Your task to perform on an android device: Go to Yahoo.com Image 0: 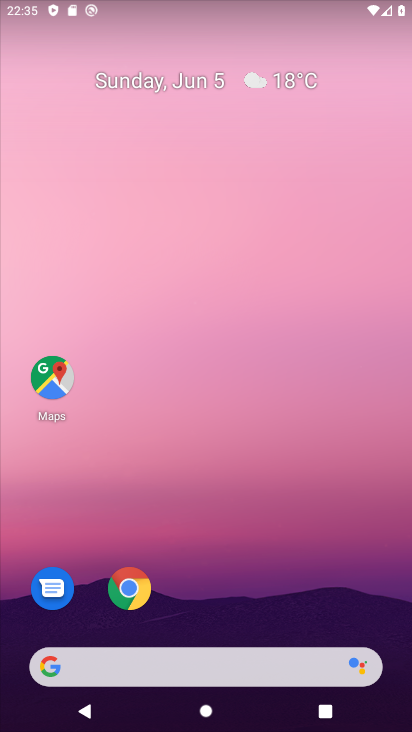
Step 0: drag from (301, 582) to (322, 216)
Your task to perform on an android device: Go to Yahoo.com Image 1: 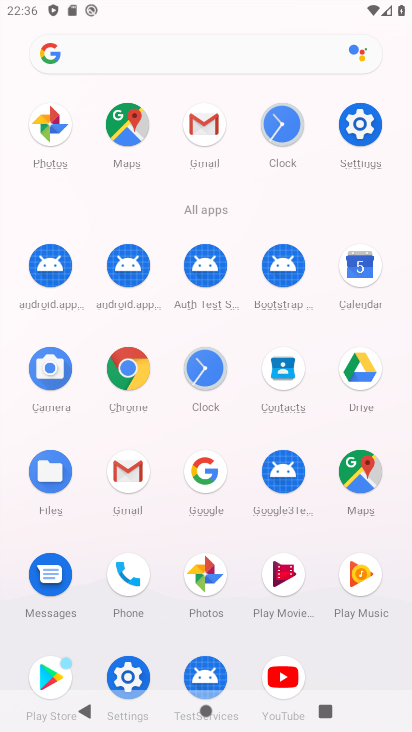
Step 1: click (129, 376)
Your task to perform on an android device: Go to Yahoo.com Image 2: 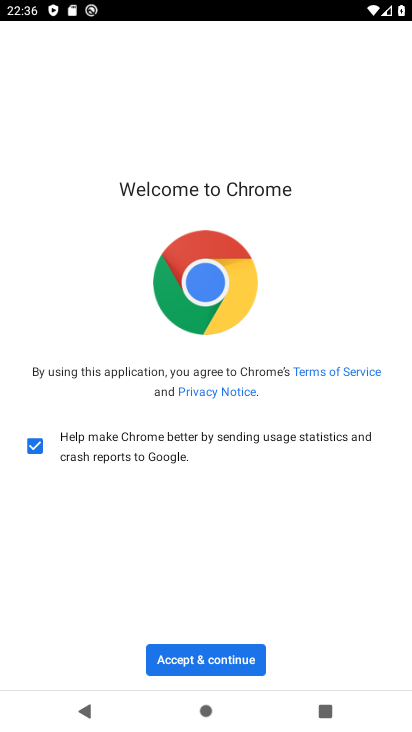
Step 2: click (191, 663)
Your task to perform on an android device: Go to Yahoo.com Image 3: 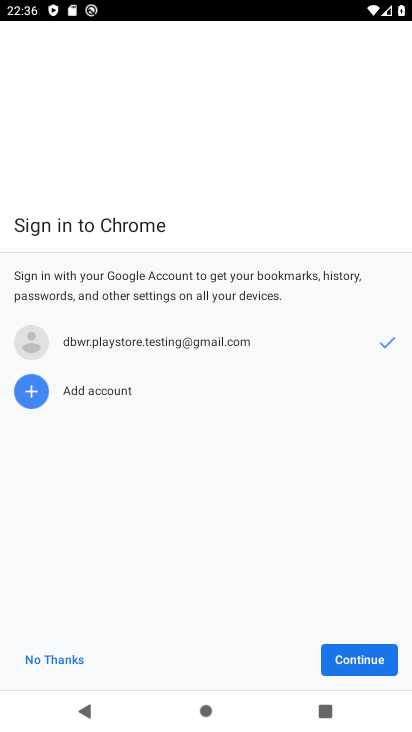
Step 3: click (338, 661)
Your task to perform on an android device: Go to Yahoo.com Image 4: 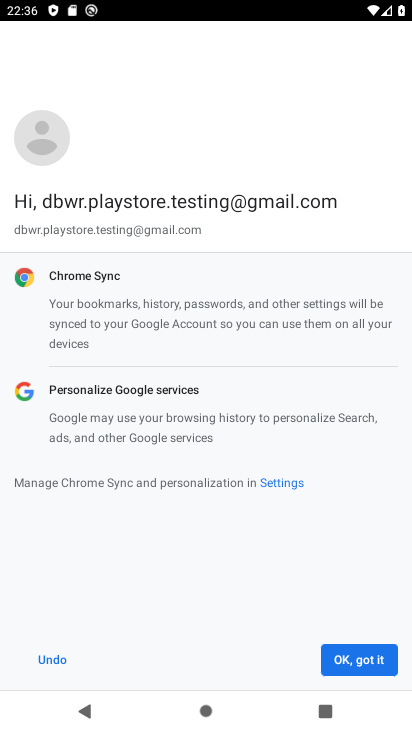
Step 4: click (333, 663)
Your task to perform on an android device: Go to Yahoo.com Image 5: 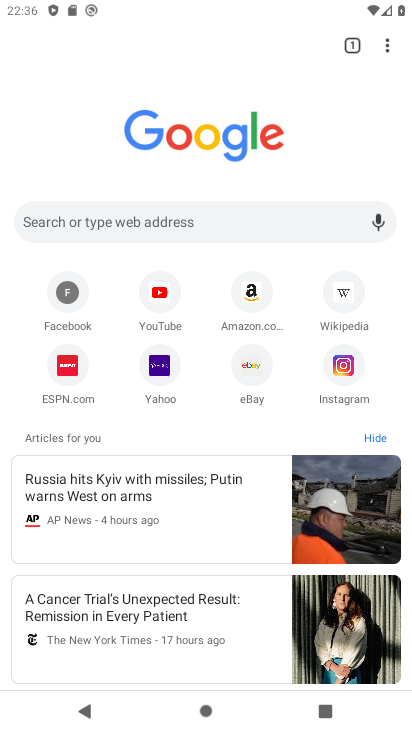
Step 5: click (157, 364)
Your task to perform on an android device: Go to Yahoo.com Image 6: 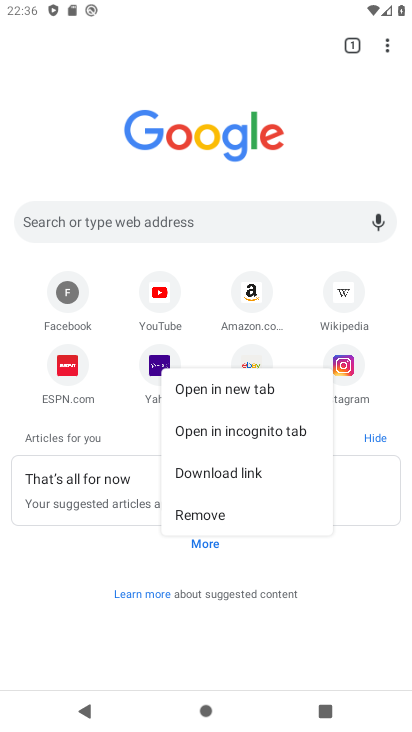
Step 6: click (149, 379)
Your task to perform on an android device: Go to Yahoo.com Image 7: 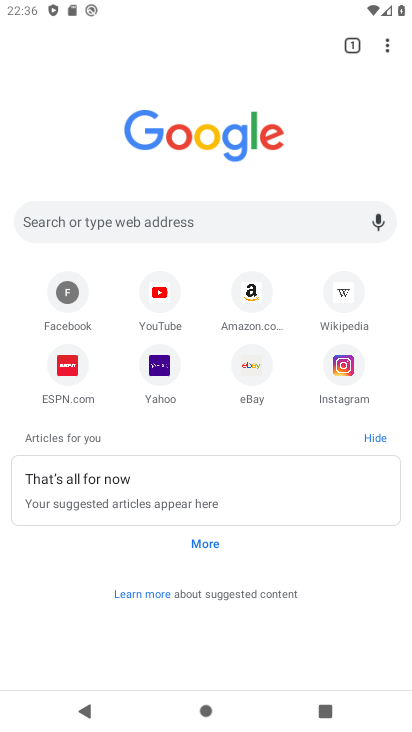
Step 7: click (165, 373)
Your task to perform on an android device: Go to Yahoo.com Image 8: 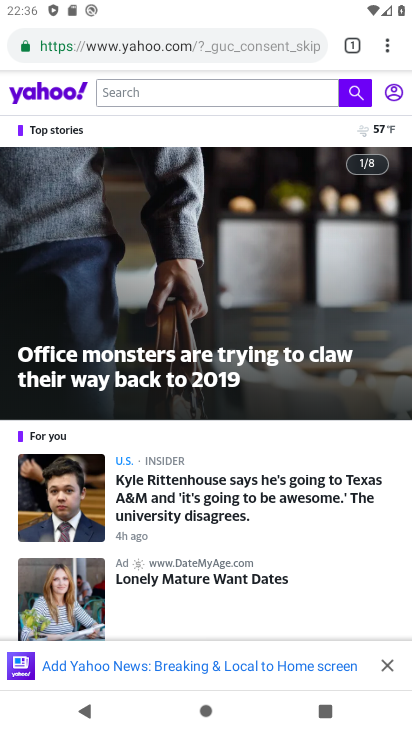
Step 8: task complete